Your task to perform on an android device: Open Google Chrome and open the bookmarks view Image 0: 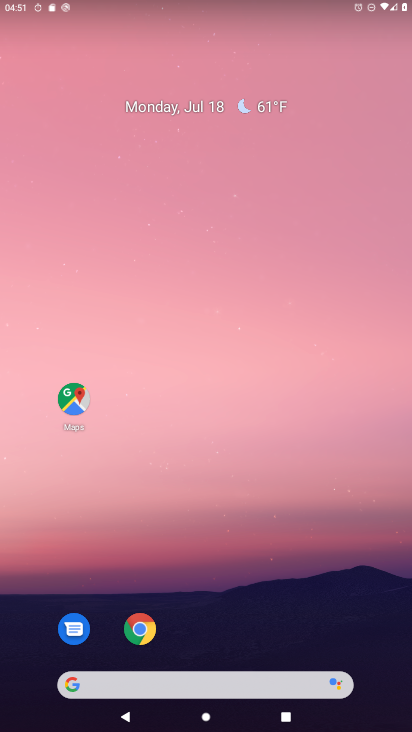
Step 0: click (142, 632)
Your task to perform on an android device: Open Google Chrome and open the bookmarks view Image 1: 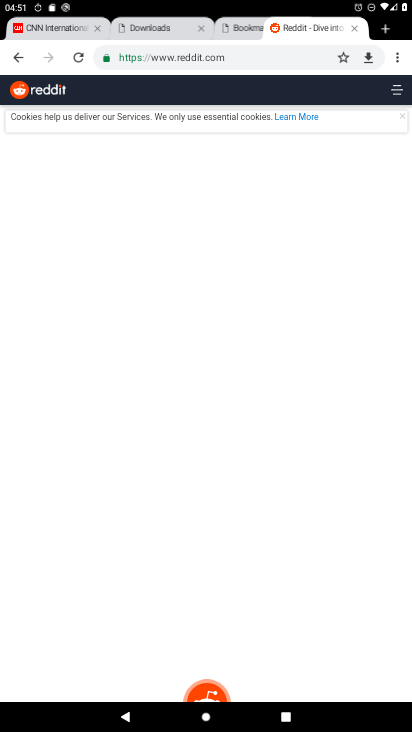
Step 1: click (399, 58)
Your task to perform on an android device: Open Google Chrome and open the bookmarks view Image 2: 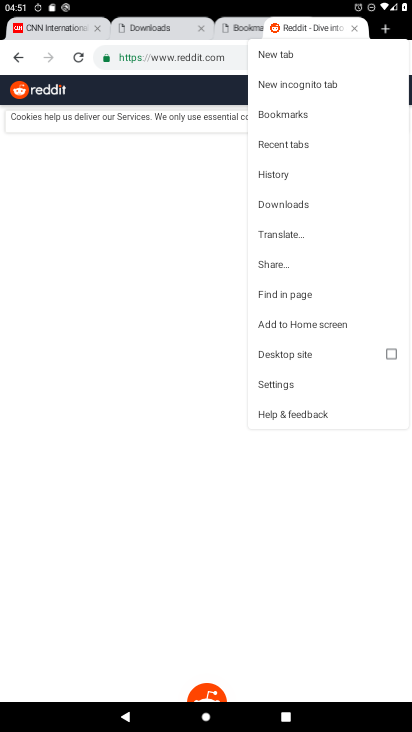
Step 2: click (300, 117)
Your task to perform on an android device: Open Google Chrome and open the bookmarks view Image 3: 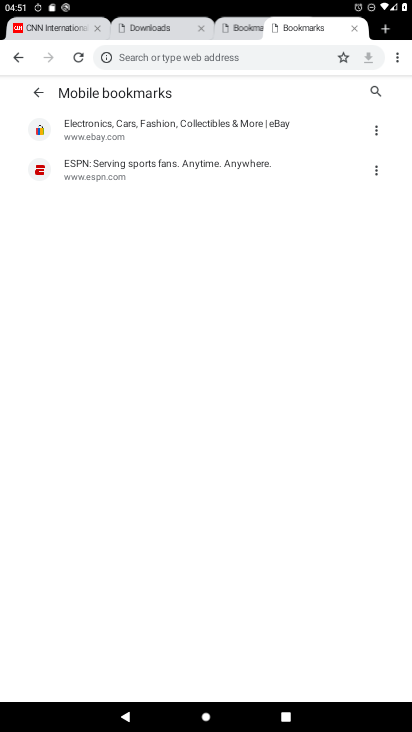
Step 3: task complete